Your task to perform on an android device: snooze an email in the gmail app Image 0: 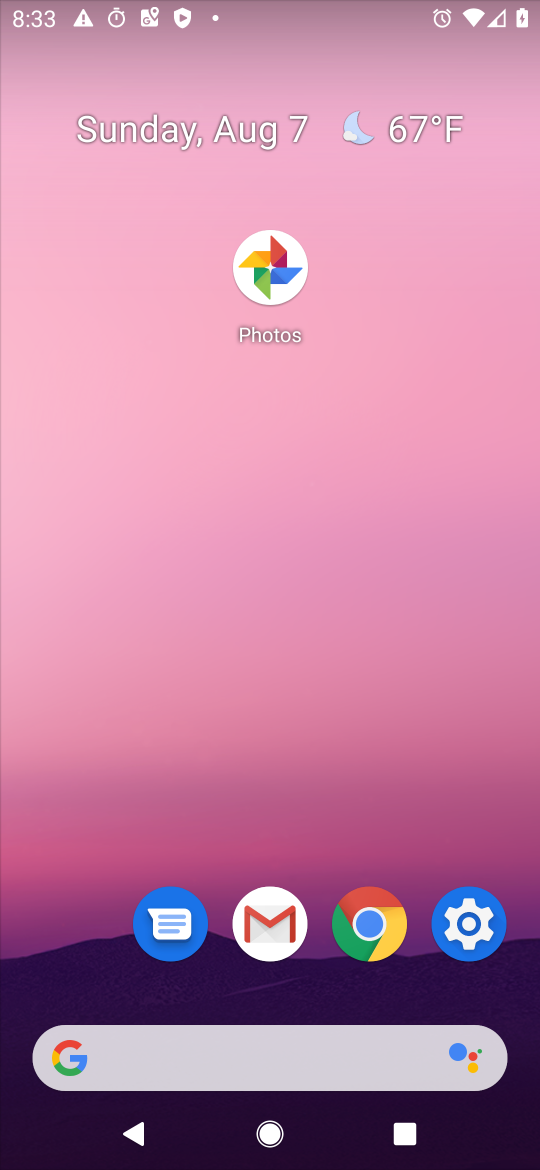
Step 0: drag from (374, 1087) to (367, 135)
Your task to perform on an android device: snooze an email in the gmail app Image 1: 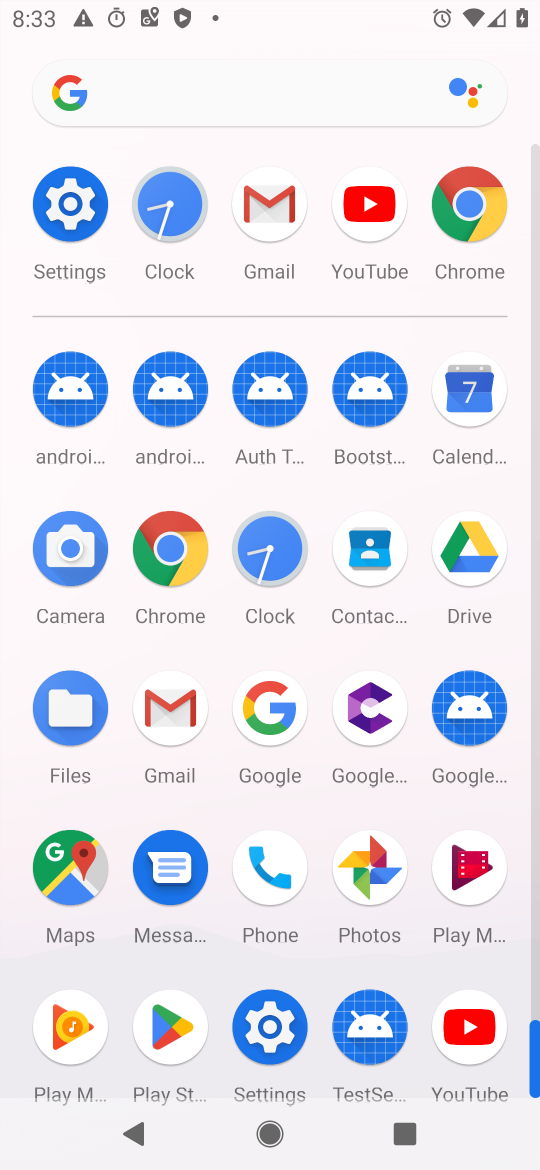
Step 1: click (273, 215)
Your task to perform on an android device: snooze an email in the gmail app Image 2: 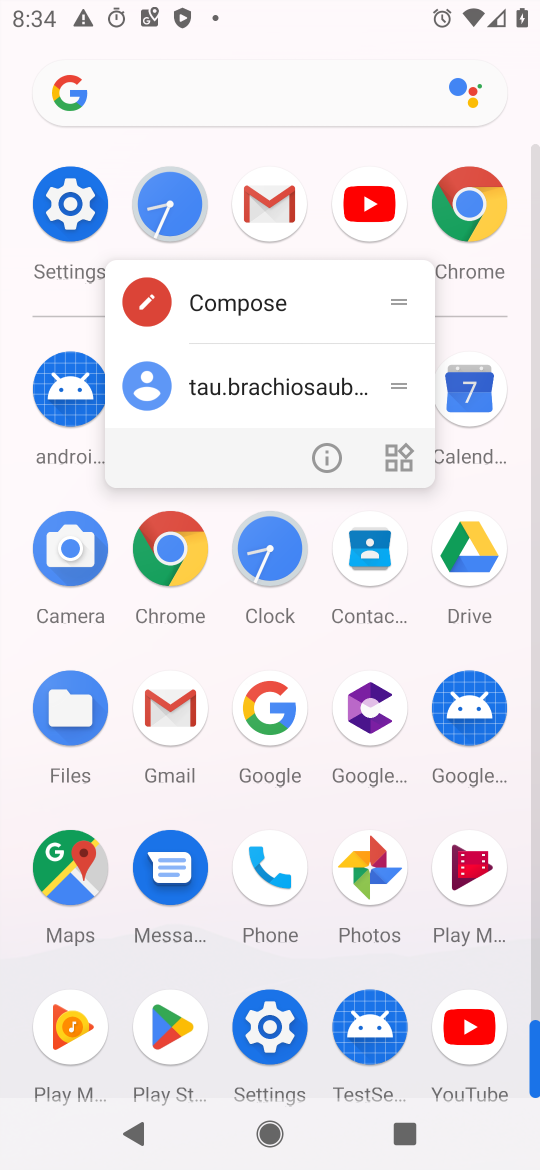
Step 2: click (266, 207)
Your task to perform on an android device: snooze an email in the gmail app Image 3: 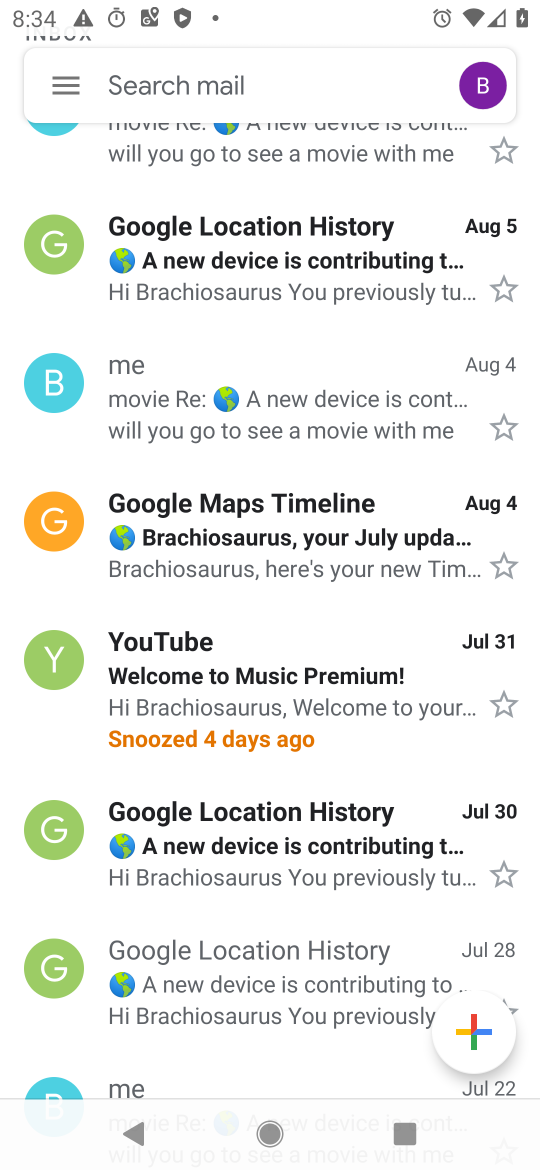
Step 3: click (82, 82)
Your task to perform on an android device: snooze an email in the gmail app Image 4: 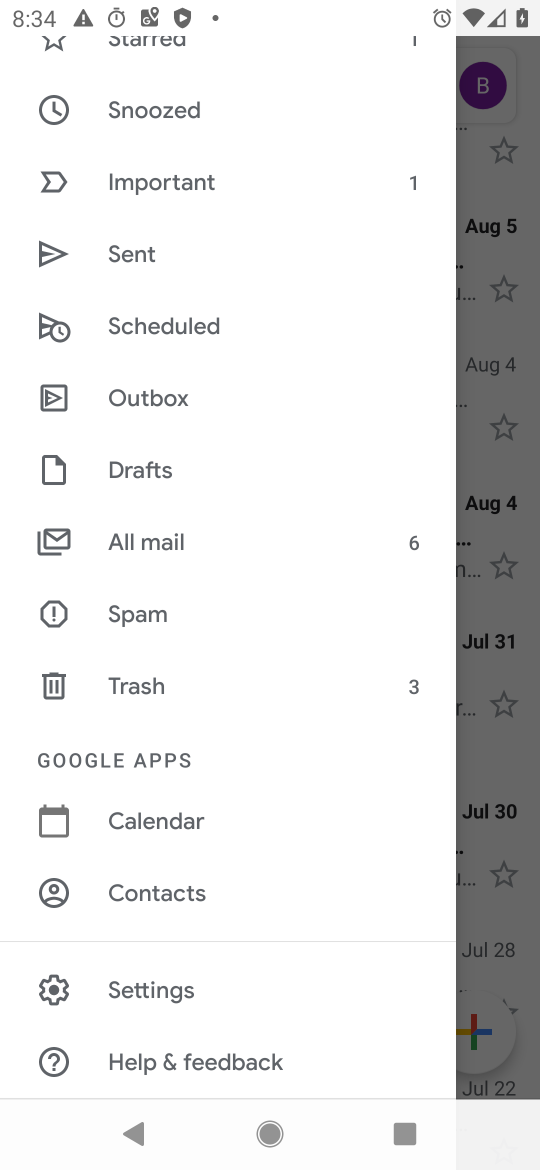
Step 4: click (485, 391)
Your task to perform on an android device: snooze an email in the gmail app Image 5: 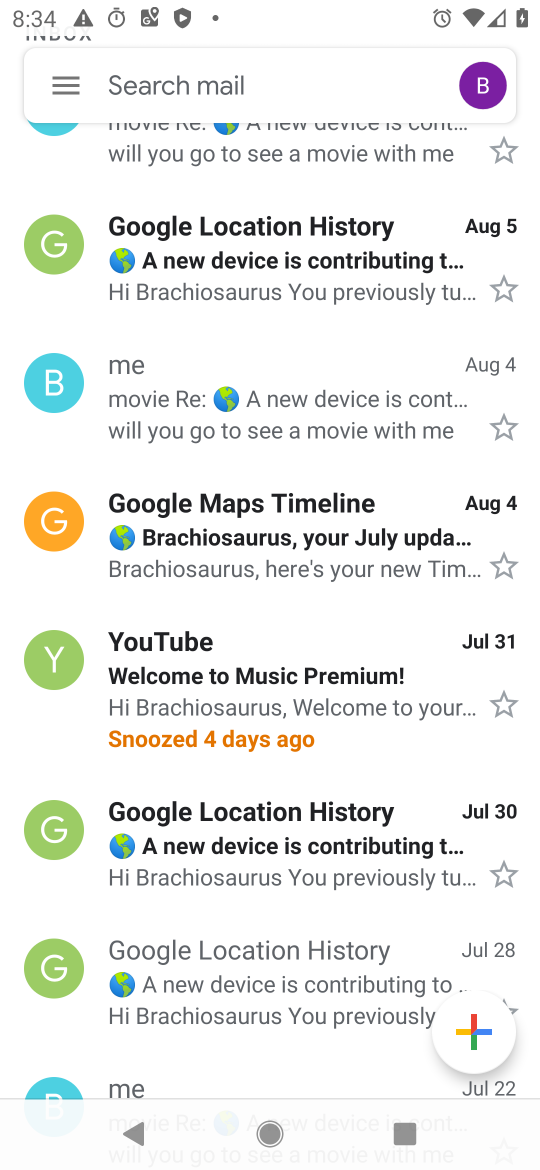
Step 5: click (254, 384)
Your task to perform on an android device: snooze an email in the gmail app Image 6: 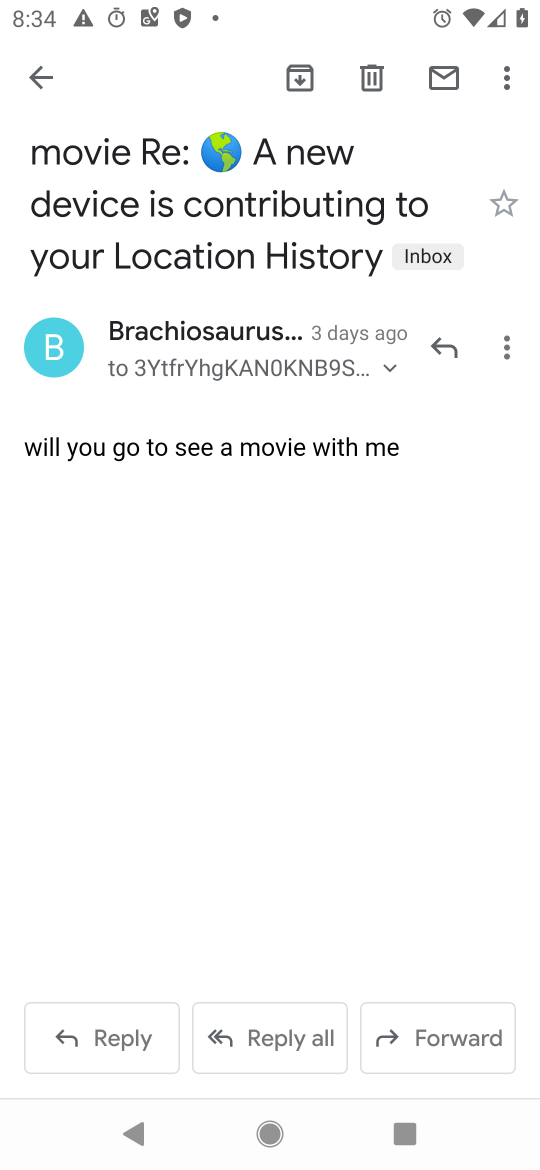
Step 6: click (505, 89)
Your task to perform on an android device: snooze an email in the gmail app Image 7: 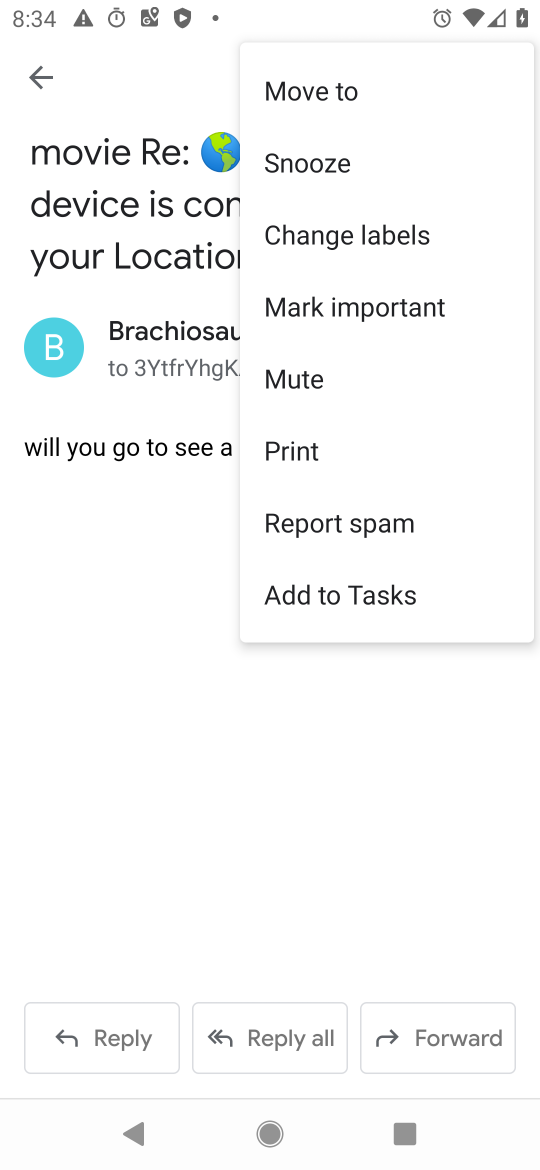
Step 7: click (318, 161)
Your task to perform on an android device: snooze an email in the gmail app Image 8: 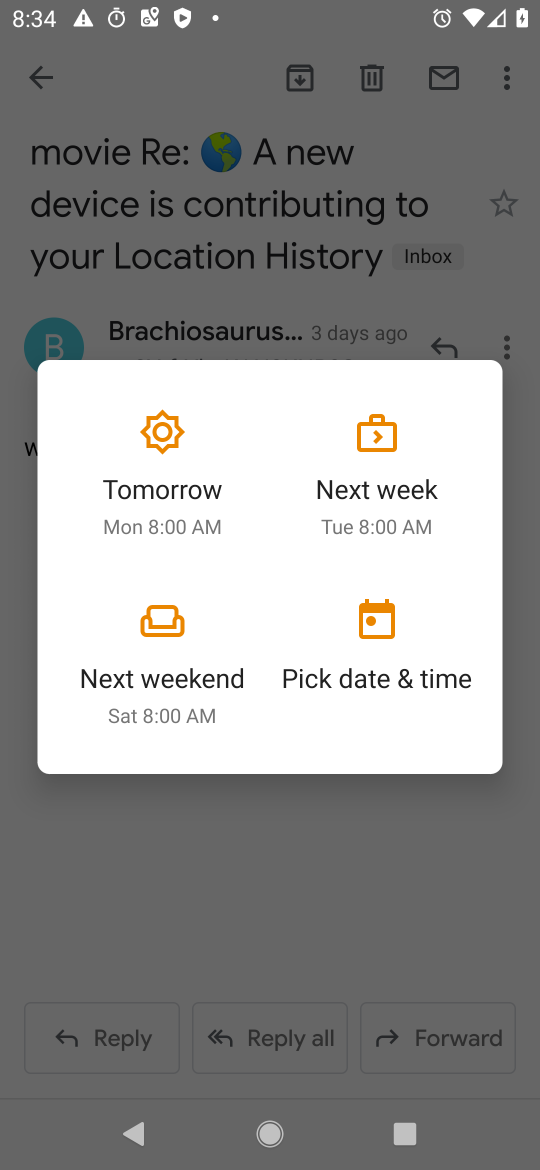
Step 8: click (172, 484)
Your task to perform on an android device: snooze an email in the gmail app Image 9: 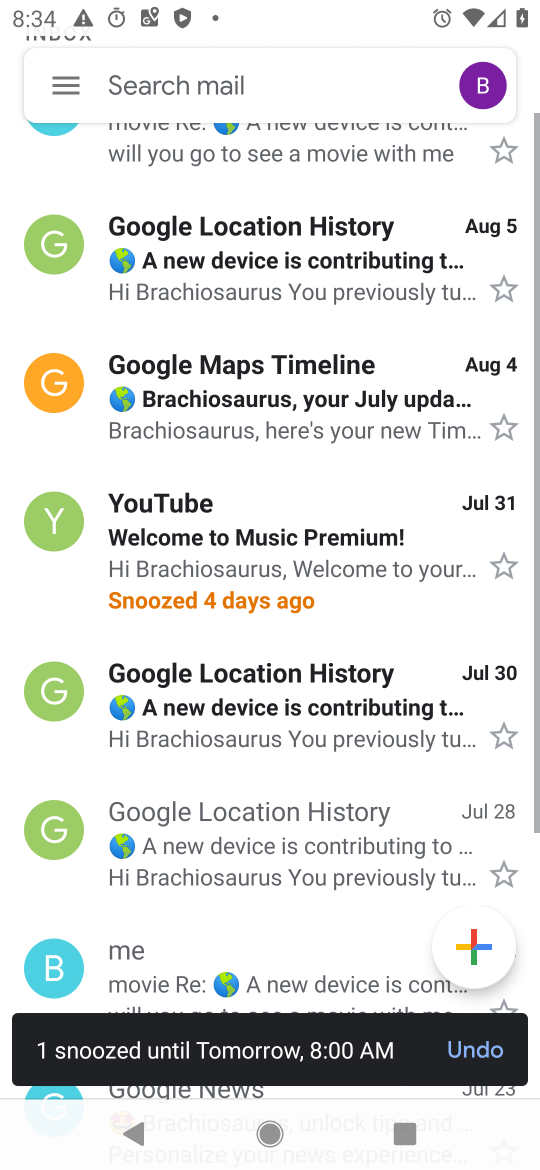
Step 9: task complete